Your task to perform on an android device: Open Youtube and go to the subscriptions tab Image 0: 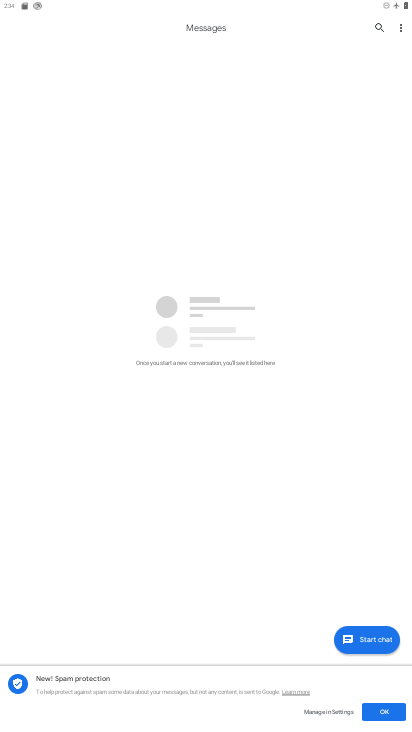
Step 0: press home button
Your task to perform on an android device: Open Youtube and go to the subscriptions tab Image 1: 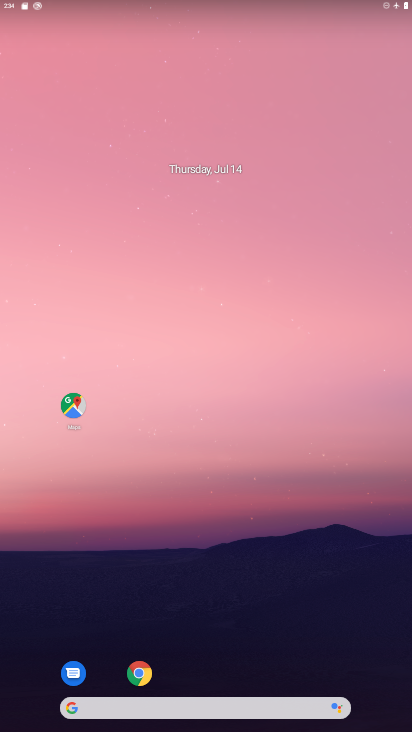
Step 1: drag from (246, 680) to (364, 122)
Your task to perform on an android device: Open Youtube and go to the subscriptions tab Image 2: 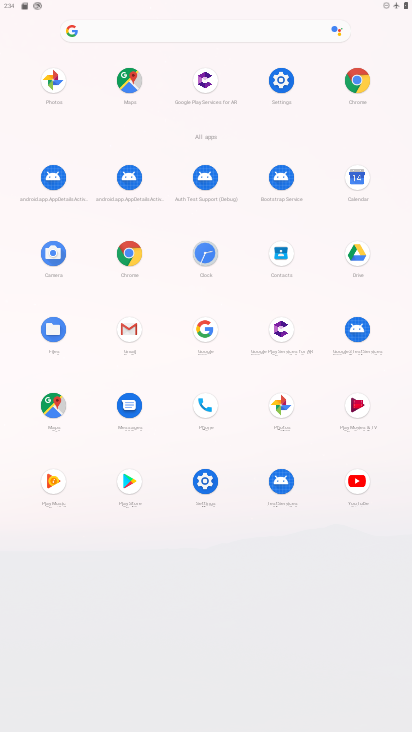
Step 2: click (358, 485)
Your task to perform on an android device: Open Youtube and go to the subscriptions tab Image 3: 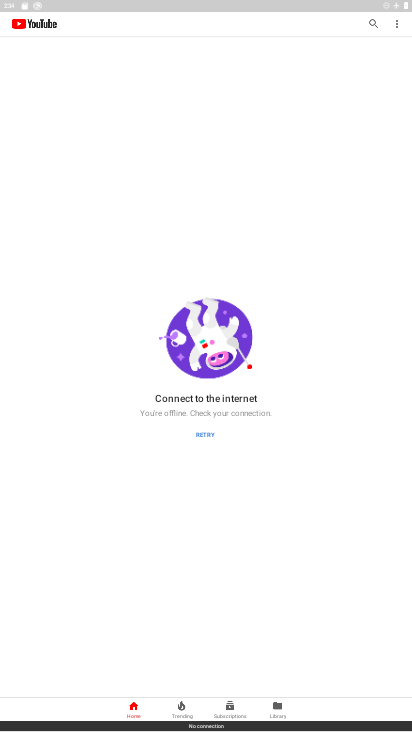
Step 3: click (231, 703)
Your task to perform on an android device: Open Youtube and go to the subscriptions tab Image 4: 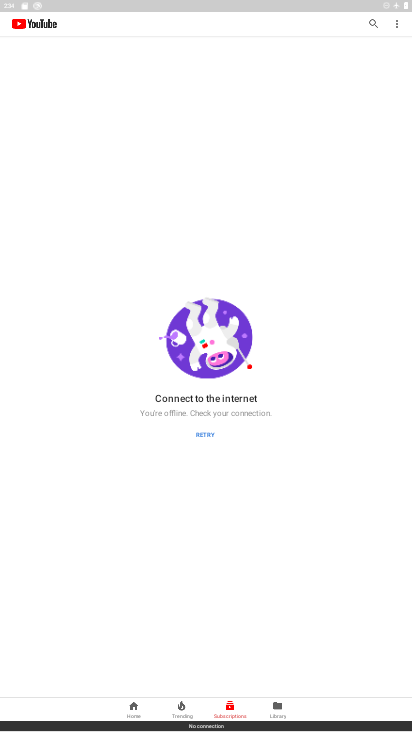
Step 4: task complete